Your task to perform on an android device: choose inbox layout in the gmail app Image 0: 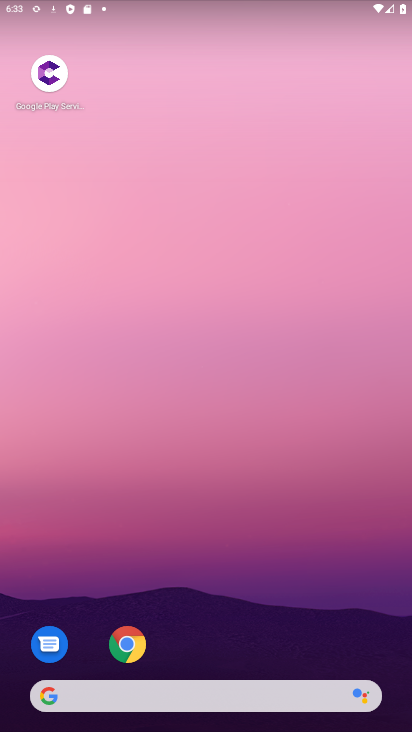
Step 0: drag from (231, 586) to (270, 5)
Your task to perform on an android device: choose inbox layout in the gmail app Image 1: 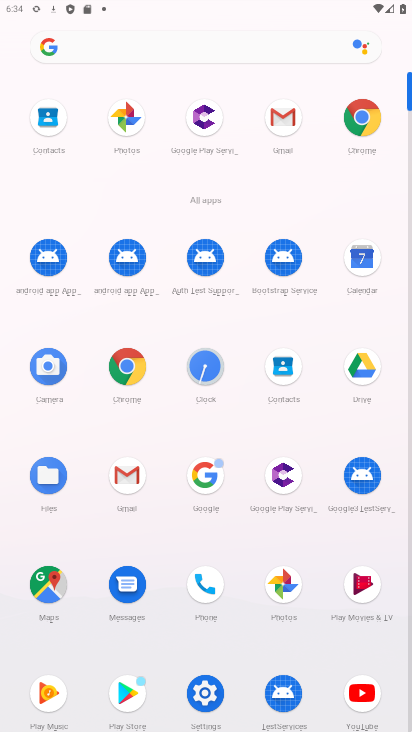
Step 1: click (274, 115)
Your task to perform on an android device: choose inbox layout in the gmail app Image 2: 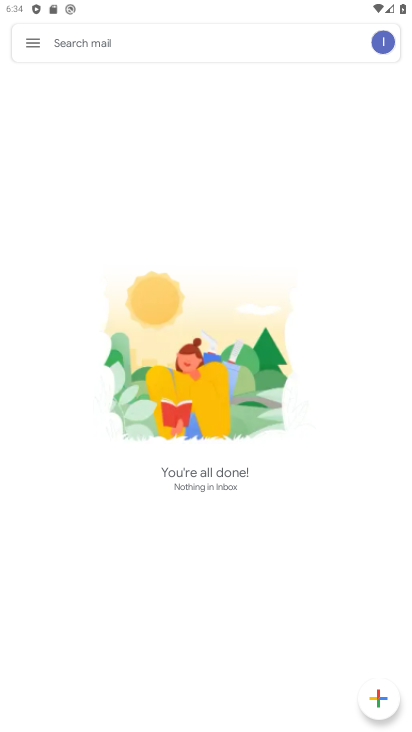
Step 2: click (28, 39)
Your task to perform on an android device: choose inbox layout in the gmail app Image 3: 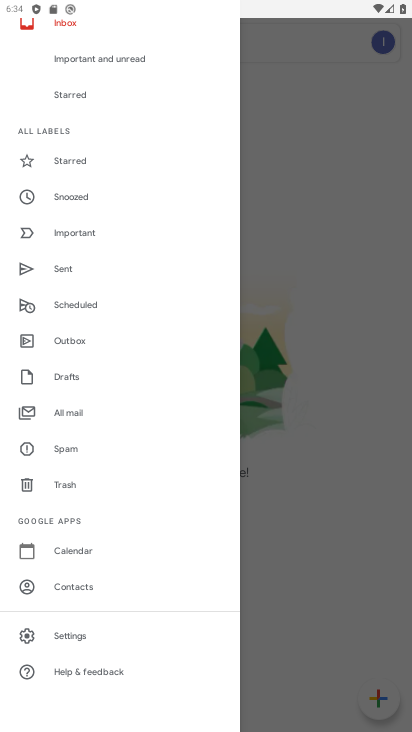
Step 3: click (71, 639)
Your task to perform on an android device: choose inbox layout in the gmail app Image 4: 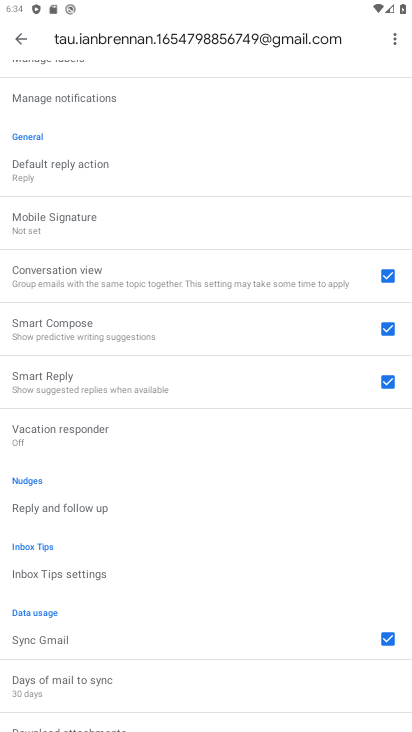
Step 4: drag from (99, 292) to (127, 458)
Your task to perform on an android device: choose inbox layout in the gmail app Image 5: 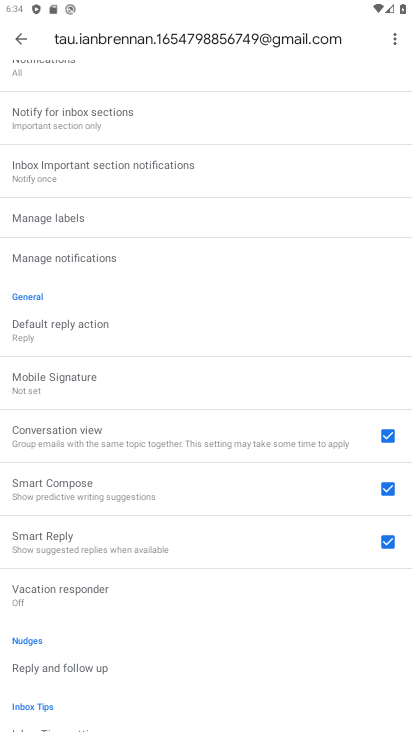
Step 5: drag from (78, 209) to (91, 373)
Your task to perform on an android device: choose inbox layout in the gmail app Image 6: 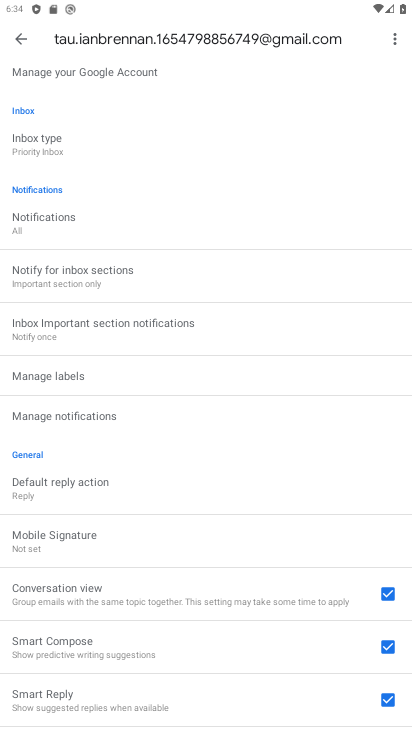
Step 6: click (40, 138)
Your task to perform on an android device: choose inbox layout in the gmail app Image 7: 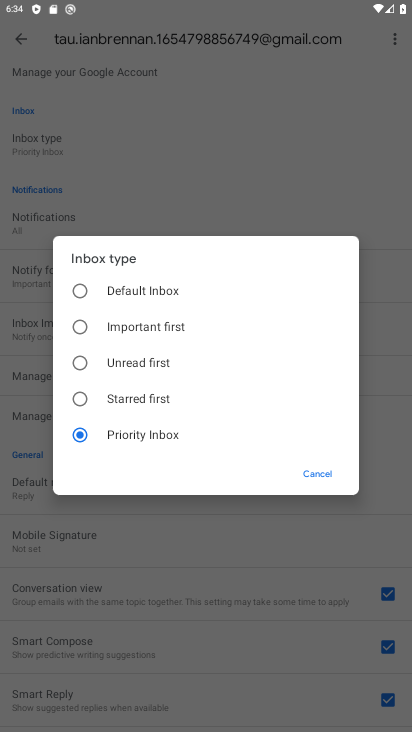
Step 7: click (86, 295)
Your task to perform on an android device: choose inbox layout in the gmail app Image 8: 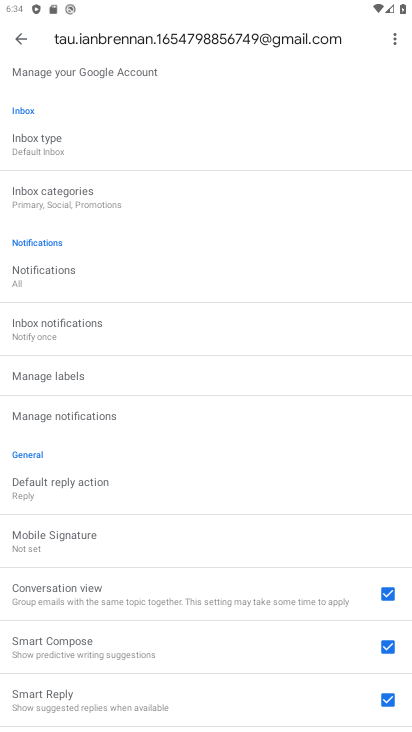
Step 8: task complete